Your task to perform on an android device: turn off translation in the chrome app Image 0: 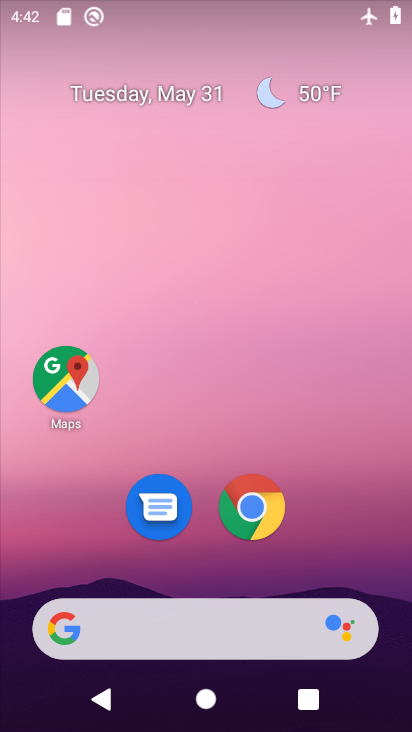
Step 0: click (260, 505)
Your task to perform on an android device: turn off translation in the chrome app Image 1: 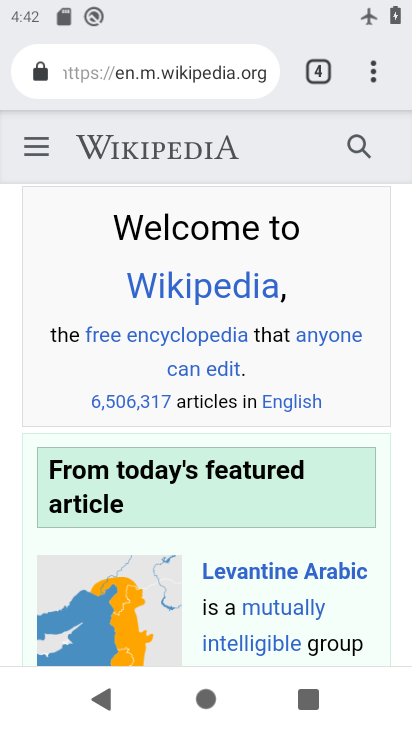
Step 1: click (374, 79)
Your task to perform on an android device: turn off translation in the chrome app Image 2: 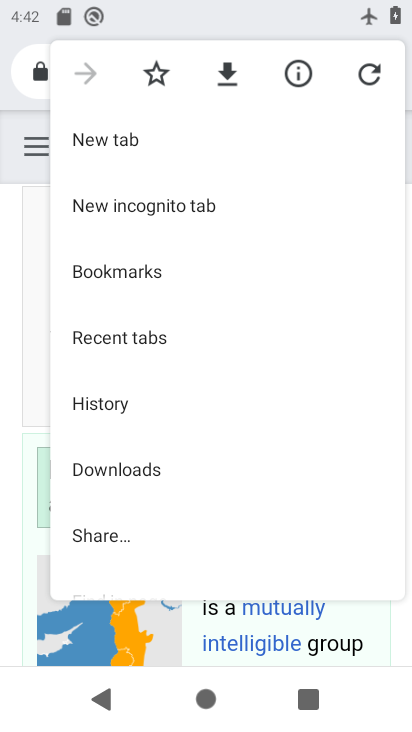
Step 2: drag from (226, 488) to (230, 110)
Your task to perform on an android device: turn off translation in the chrome app Image 3: 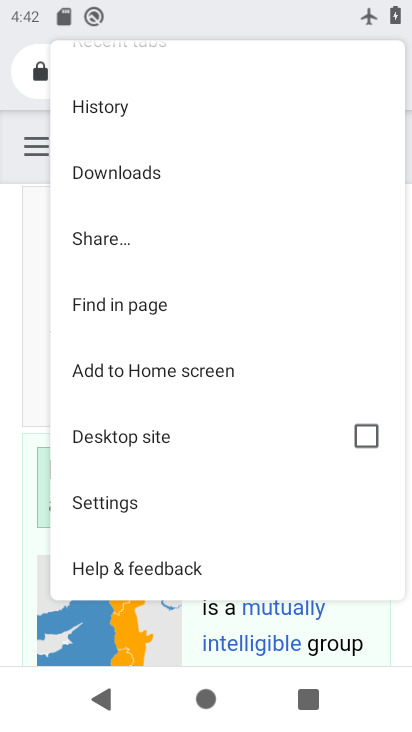
Step 3: drag from (186, 496) to (188, 453)
Your task to perform on an android device: turn off translation in the chrome app Image 4: 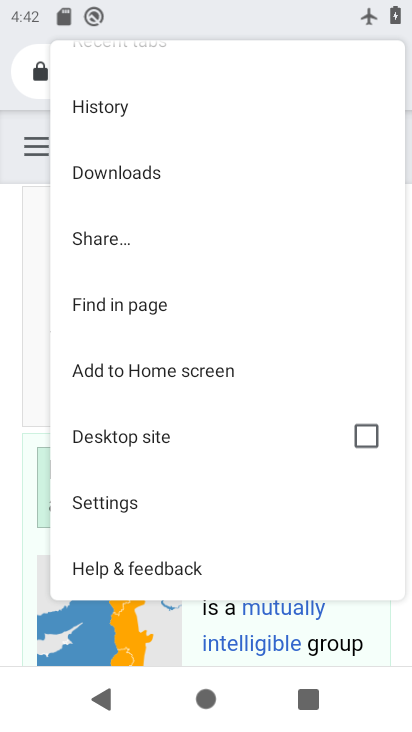
Step 4: click (193, 500)
Your task to perform on an android device: turn off translation in the chrome app Image 5: 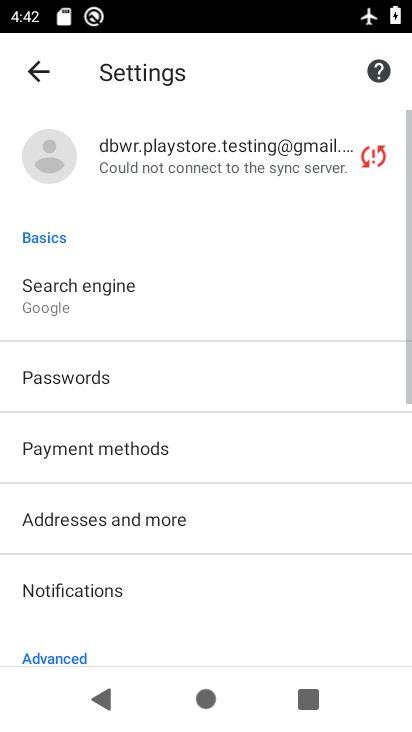
Step 5: drag from (246, 479) to (254, 69)
Your task to perform on an android device: turn off translation in the chrome app Image 6: 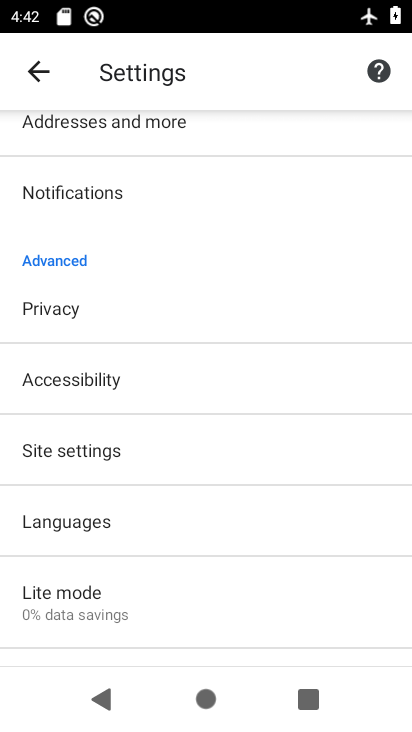
Step 6: click (170, 517)
Your task to perform on an android device: turn off translation in the chrome app Image 7: 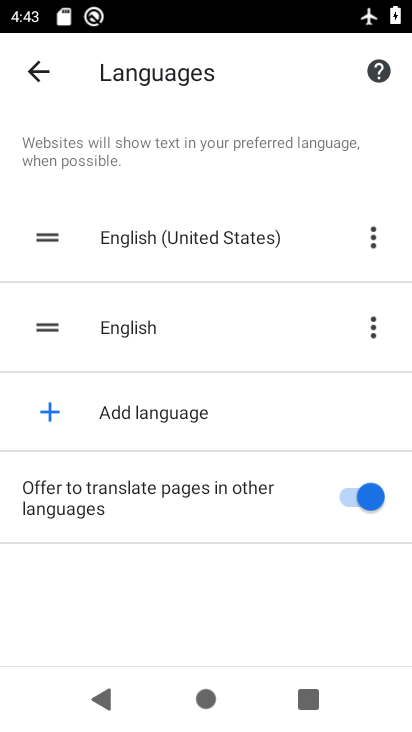
Step 7: click (350, 497)
Your task to perform on an android device: turn off translation in the chrome app Image 8: 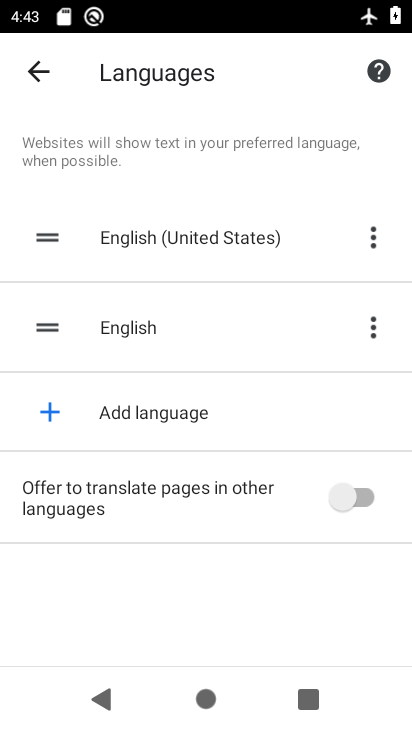
Step 8: task complete